Your task to perform on an android device: What's on my calendar tomorrow? Image 0: 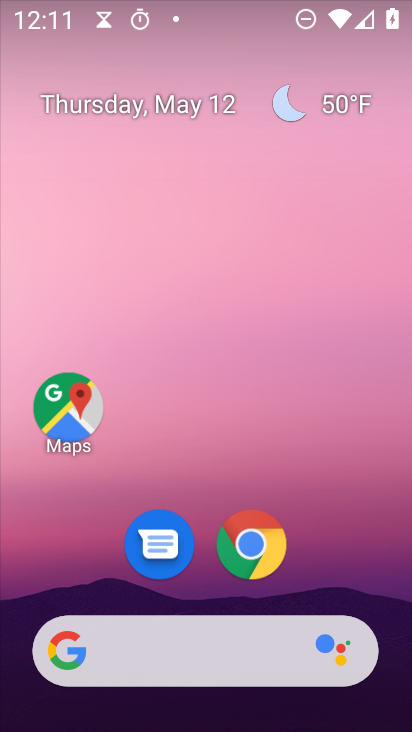
Step 0: click (152, 102)
Your task to perform on an android device: What's on my calendar tomorrow? Image 1: 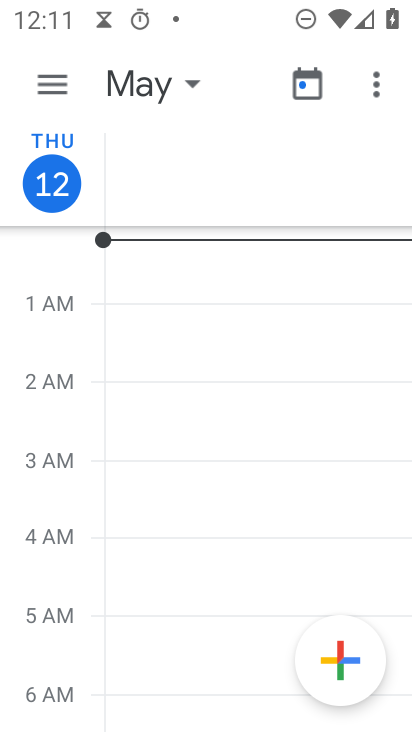
Step 1: click (152, 102)
Your task to perform on an android device: What's on my calendar tomorrow? Image 2: 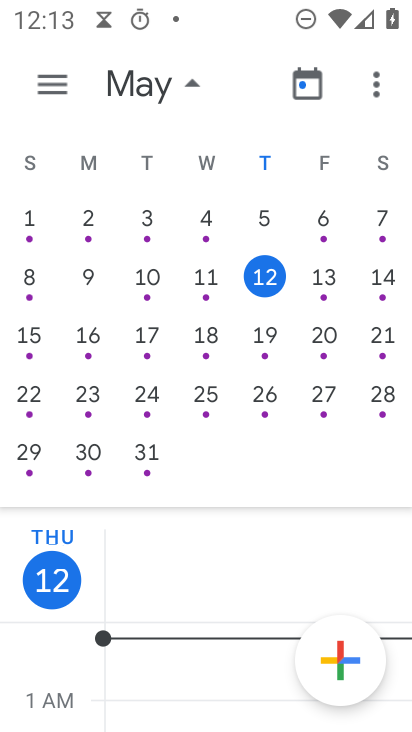
Step 2: click (323, 293)
Your task to perform on an android device: What's on my calendar tomorrow? Image 3: 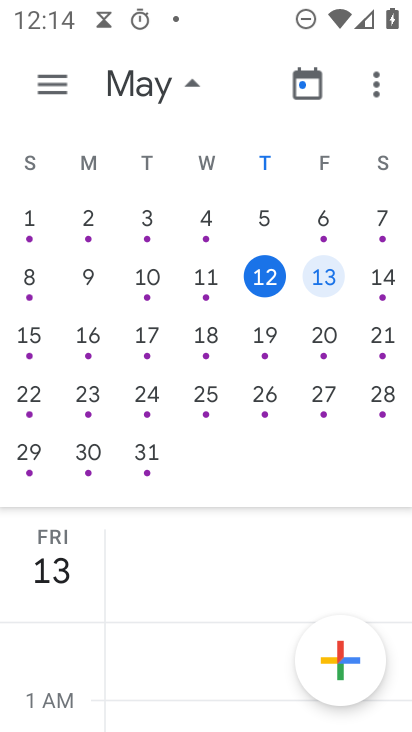
Step 3: task complete